Your task to perform on an android device: Go to accessibility settings Image 0: 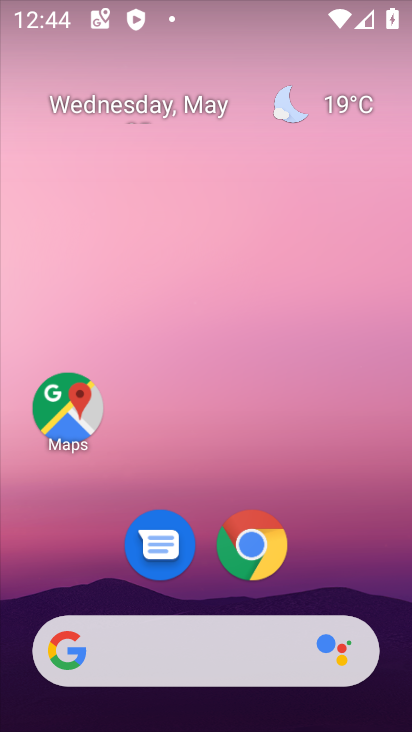
Step 0: drag from (301, 575) to (275, 5)
Your task to perform on an android device: Go to accessibility settings Image 1: 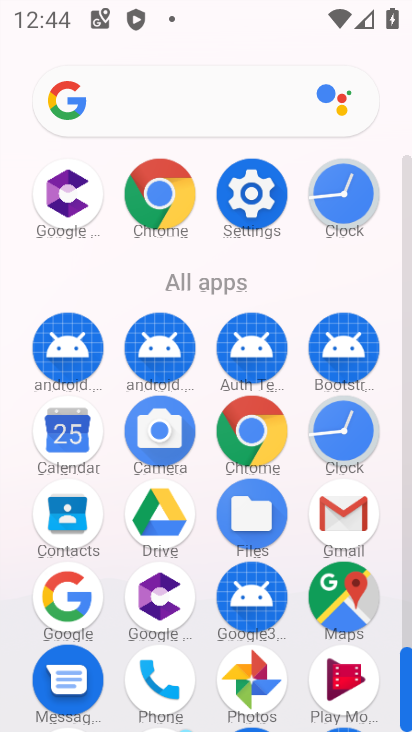
Step 1: click (261, 215)
Your task to perform on an android device: Go to accessibility settings Image 2: 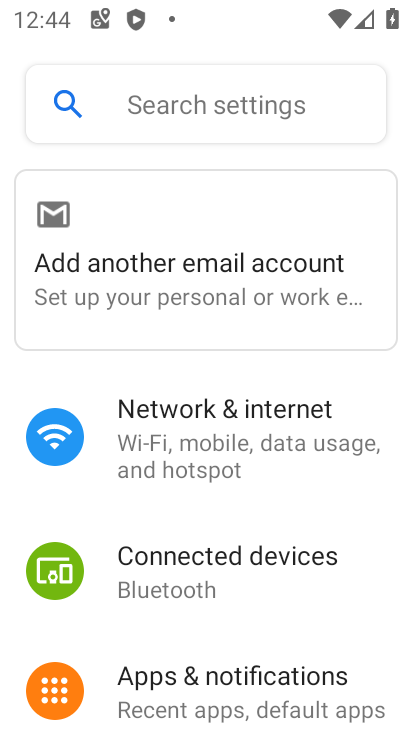
Step 2: drag from (137, 636) to (186, 45)
Your task to perform on an android device: Go to accessibility settings Image 3: 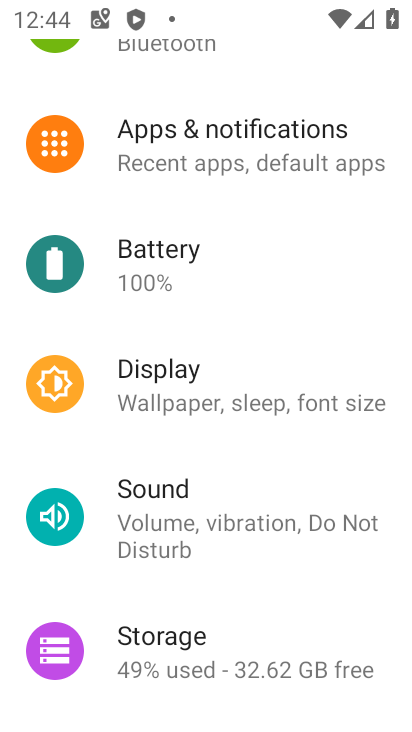
Step 3: drag from (173, 568) to (181, 204)
Your task to perform on an android device: Go to accessibility settings Image 4: 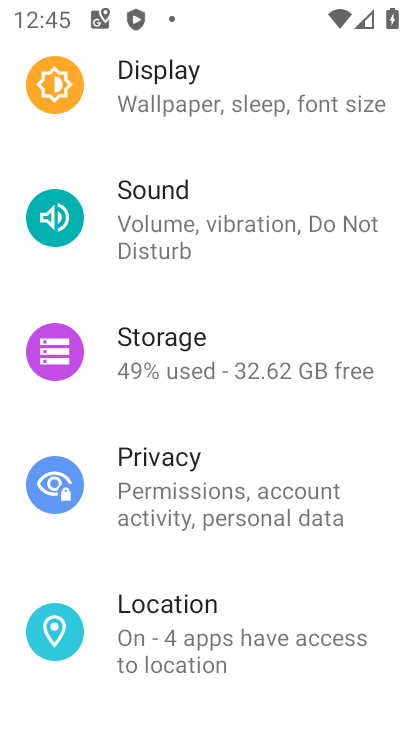
Step 4: drag from (142, 563) to (189, 92)
Your task to perform on an android device: Go to accessibility settings Image 5: 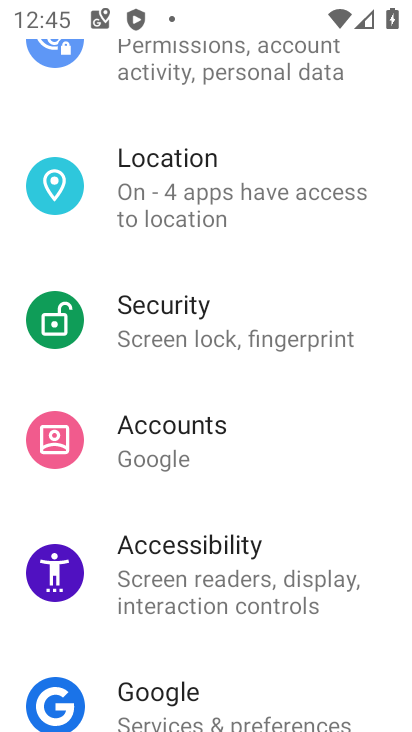
Step 5: click (211, 581)
Your task to perform on an android device: Go to accessibility settings Image 6: 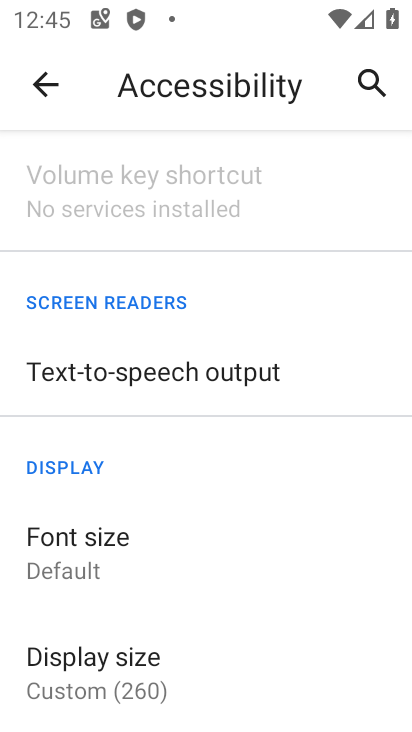
Step 6: task complete